Your task to perform on an android device: Is it going to rain this weekend? Image 0: 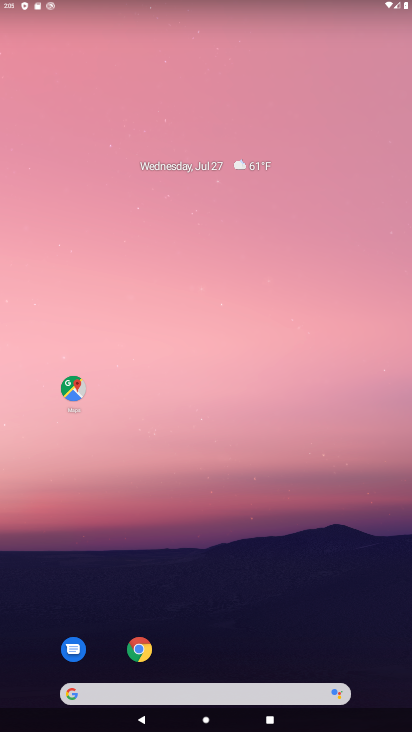
Step 0: drag from (209, 638) to (184, 130)
Your task to perform on an android device: Is it going to rain this weekend? Image 1: 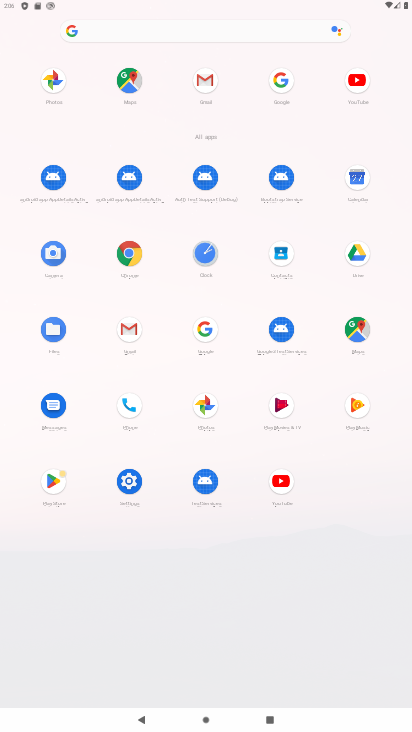
Step 1: click (124, 248)
Your task to perform on an android device: Is it going to rain this weekend? Image 2: 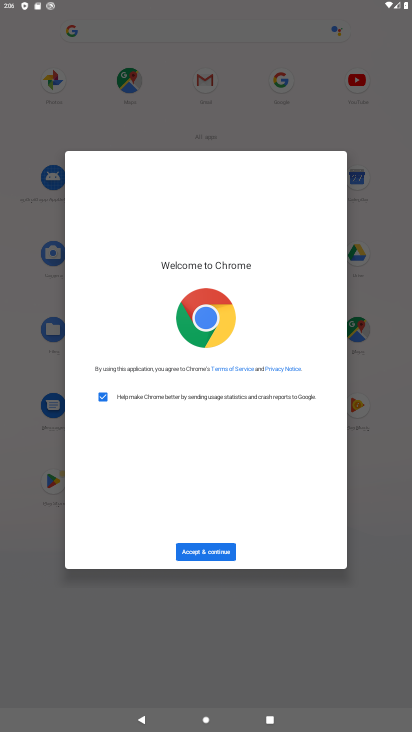
Step 2: click (206, 545)
Your task to perform on an android device: Is it going to rain this weekend? Image 3: 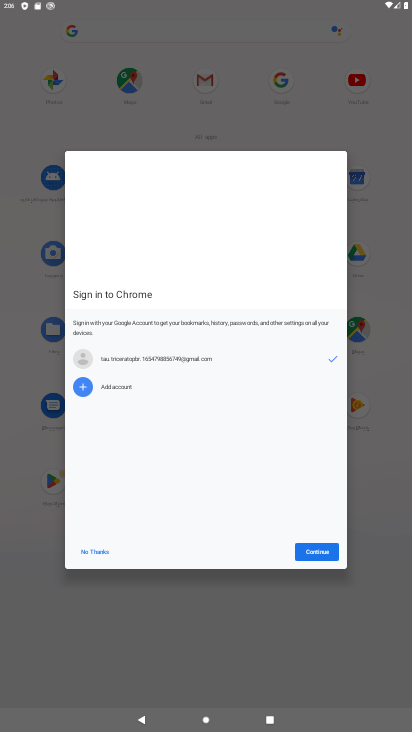
Step 3: click (326, 547)
Your task to perform on an android device: Is it going to rain this weekend? Image 4: 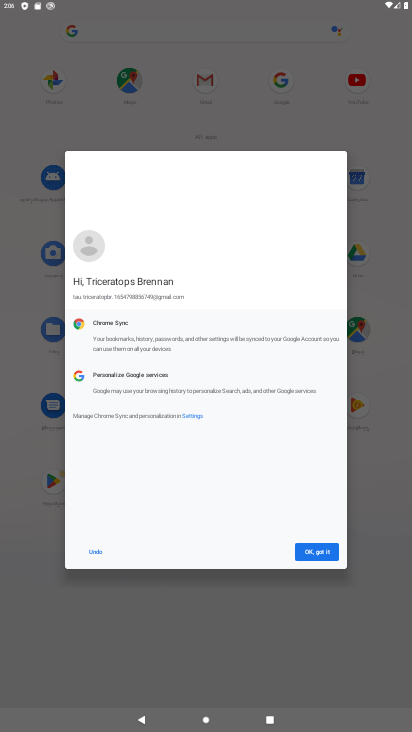
Step 4: click (326, 547)
Your task to perform on an android device: Is it going to rain this weekend? Image 5: 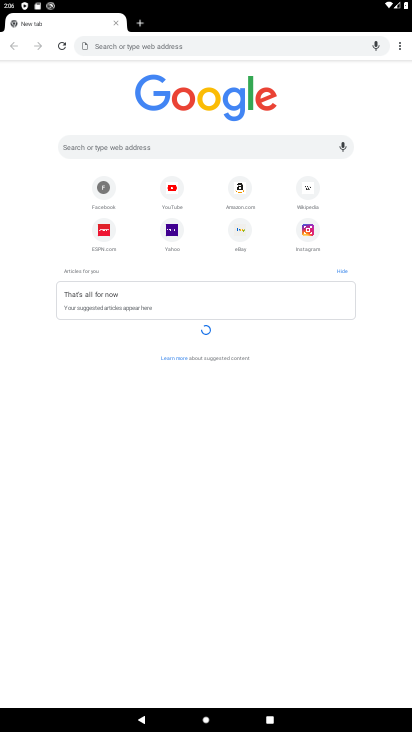
Step 5: click (117, 39)
Your task to perform on an android device: Is it going to rain this weekend? Image 6: 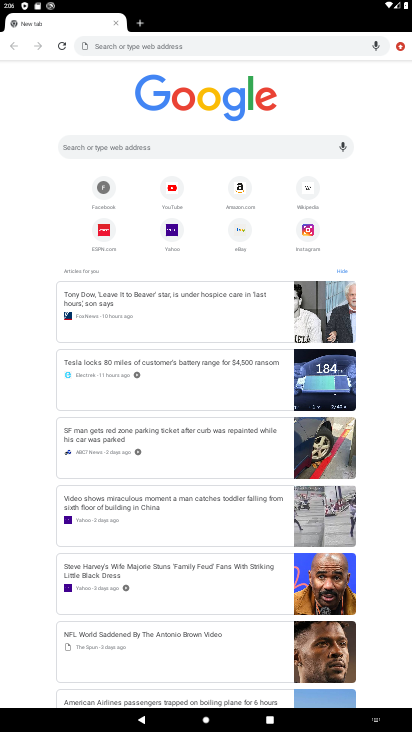
Step 6: type "Is it going to rain this weekend?"
Your task to perform on an android device: Is it going to rain this weekend? Image 7: 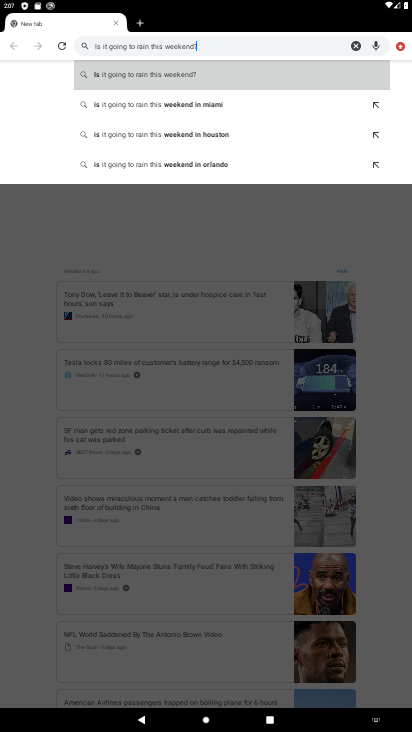
Step 7: click (166, 68)
Your task to perform on an android device: Is it going to rain this weekend? Image 8: 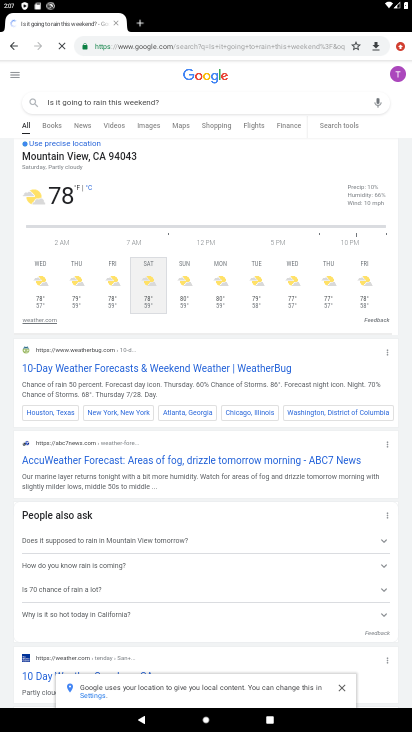
Step 8: task complete